Your task to perform on an android device: Add "razer thresher" to the cart on amazon.com, then select checkout. Image 0: 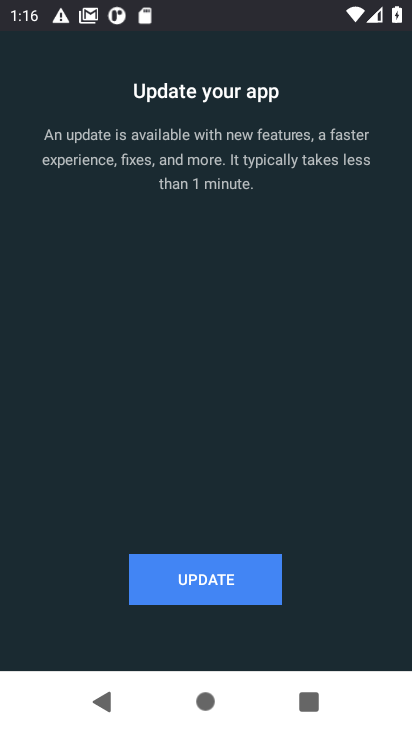
Step 0: press home button
Your task to perform on an android device: Add "razer thresher" to the cart on amazon.com, then select checkout. Image 1: 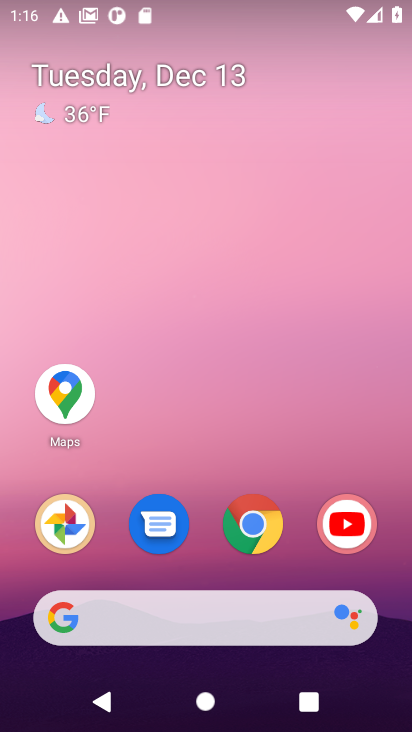
Step 1: click (254, 531)
Your task to perform on an android device: Add "razer thresher" to the cart on amazon.com, then select checkout. Image 2: 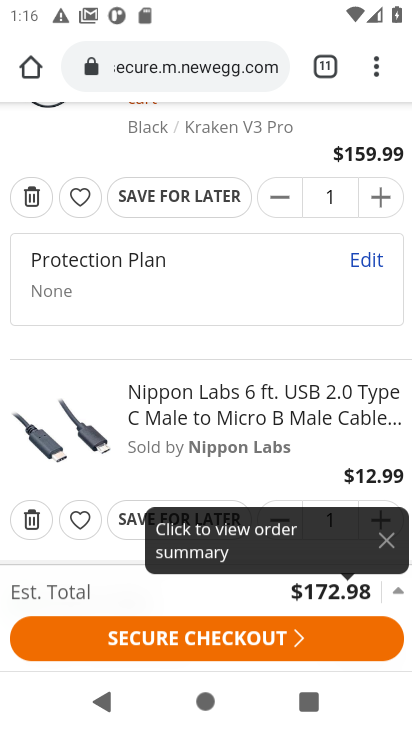
Step 2: click (160, 71)
Your task to perform on an android device: Add "razer thresher" to the cart on amazon.com, then select checkout. Image 3: 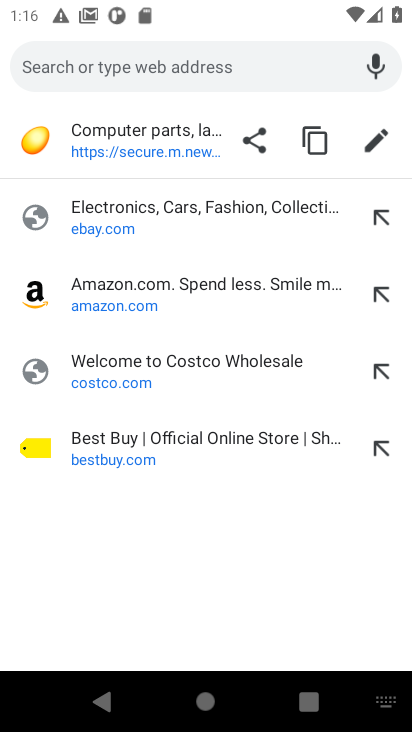
Step 3: click (92, 291)
Your task to perform on an android device: Add "razer thresher" to the cart on amazon.com, then select checkout. Image 4: 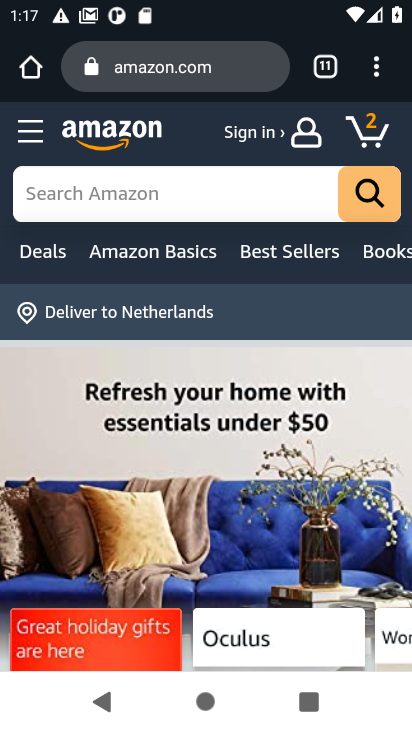
Step 4: click (68, 197)
Your task to perform on an android device: Add "razer thresher" to the cart on amazon.com, then select checkout. Image 5: 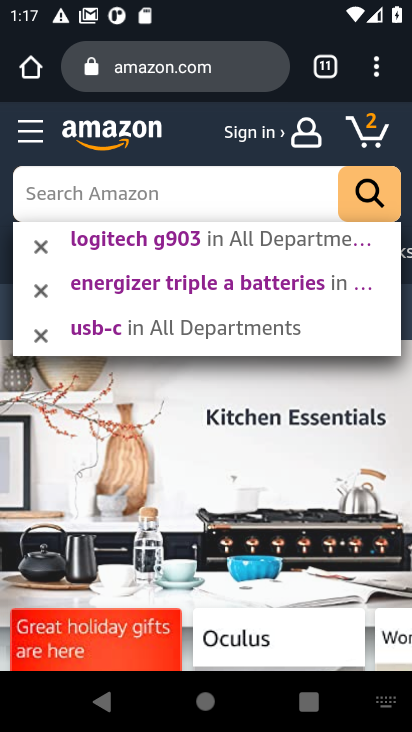
Step 5: type "razer thresher"
Your task to perform on an android device: Add "razer thresher" to the cart on amazon.com, then select checkout. Image 6: 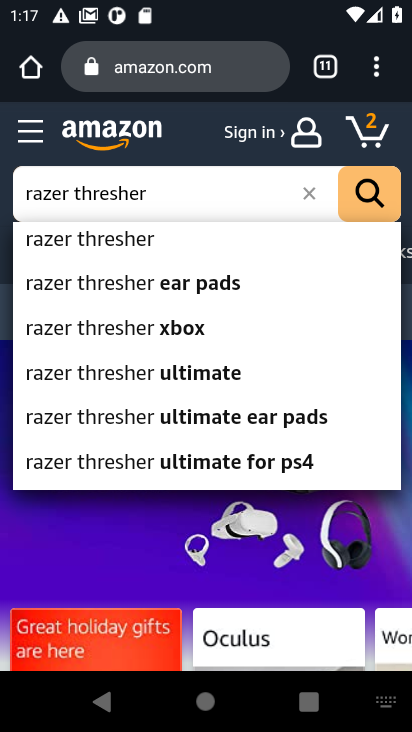
Step 6: click (119, 247)
Your task to perform on an android device: Add "razer thresher" to the cart on amazon.com, then select checkout. Image 7: 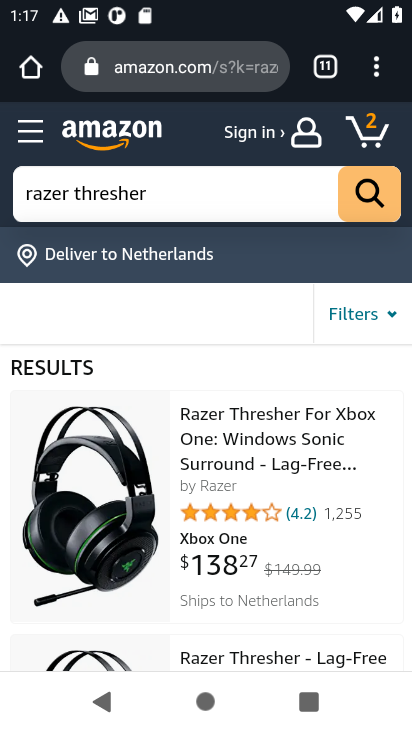
Step 7: click (226, 436)
Your task to perform on an android device: Add "razer thresher" to the cart on amazon.com, then select checkout. Image 8: 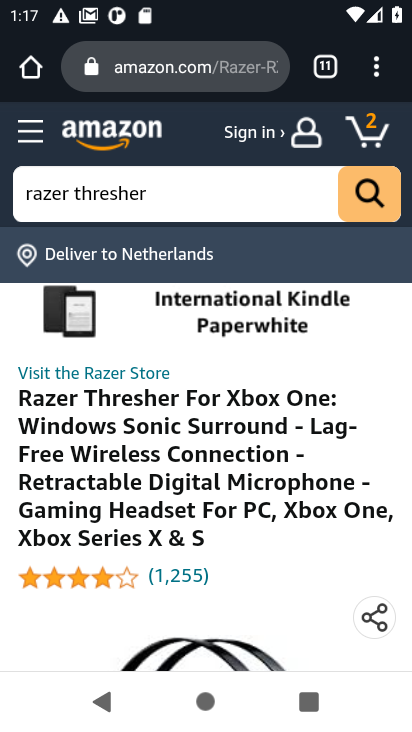
Step 8: drag from (203, 496) to (200, 222)
Your task to perform on an android device: Add "razer thresher" to the cart on amazon.com, then select checkout. Image 9: 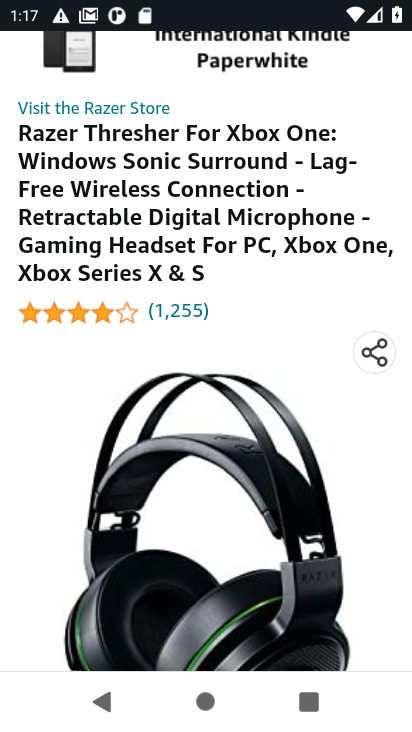
Step 9: drag from (199, 535) to (172, 212)
Your task to perform on an android device: Add "razer thresher" to the cart on amazon.com, then select checkout. Image 10: 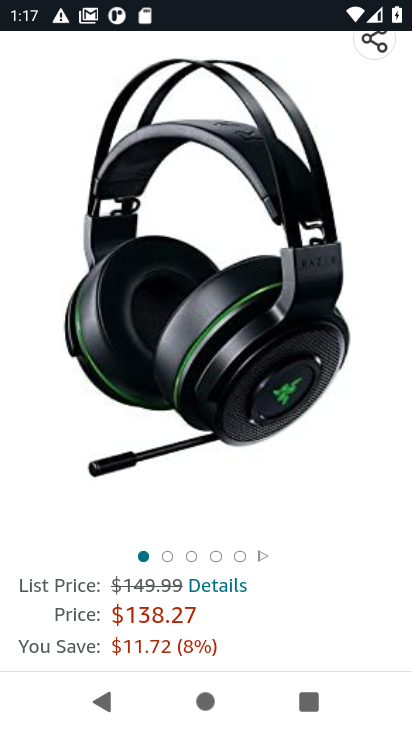
Step 10: drag from (158, 500) to (173, 147)
Your task to perform on an android device: Add "razer thresher" to the cart on amazon.com, then select checkout. Image 11: 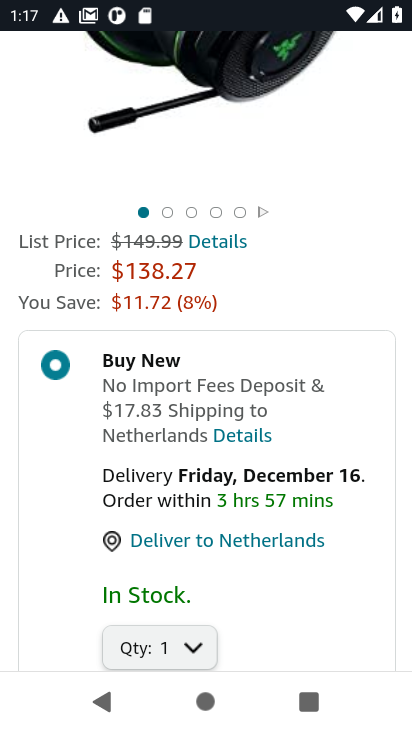
Step 11: drag from (195, 518) to (183, 180)
Your task to perform on an android device: Add "razer thresher" to the cart on amazon.com, then select checkout. Image 12: 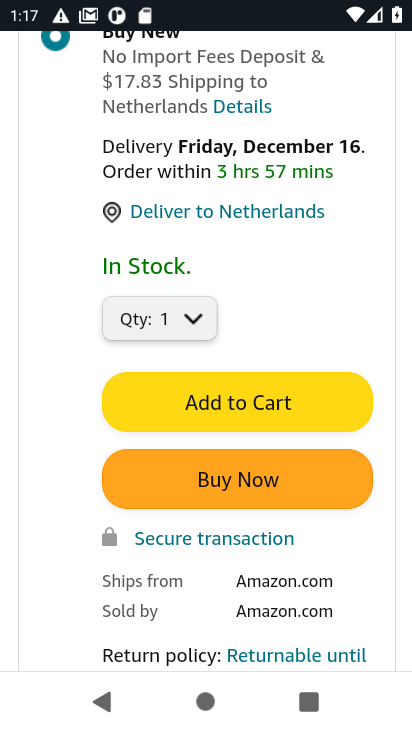
Step 12: click (201, 410)
Your task to perform on an android device: Add "razer thresher" to the cart on amazon.com, then select checkout. Image 13: 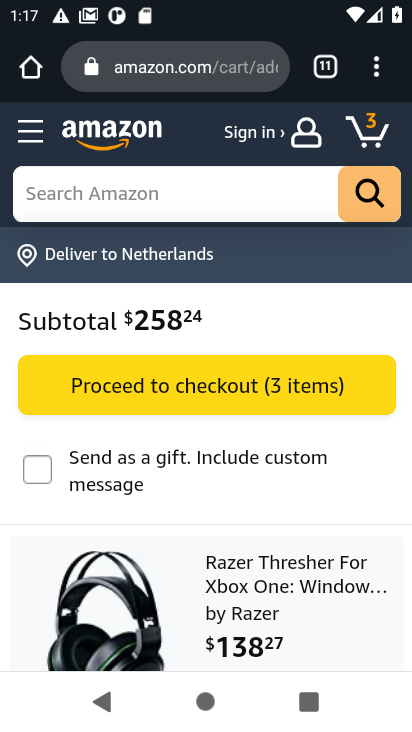
Step 13: click (183, 392)
Your task to perform on an android device: Add "razer thresher" to the cart on amazon.com, then select checkout. Image 14: 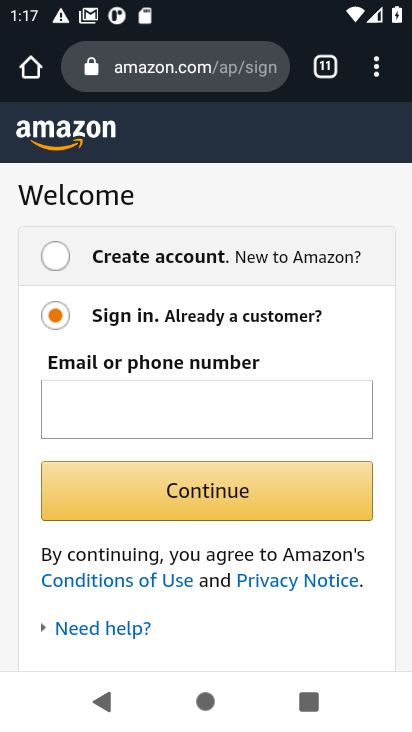
Step 14: task complete